Your task to perform on an android device: stop showing notifications on the lock screen Image 0: 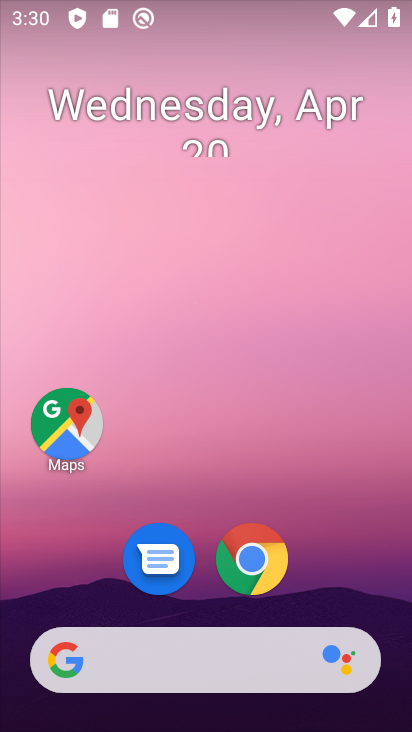
Step 0: drag from (215, 600) to (280, 188)
Your task to perform on an android device: stop showing notifications on the lock screen Image 1: 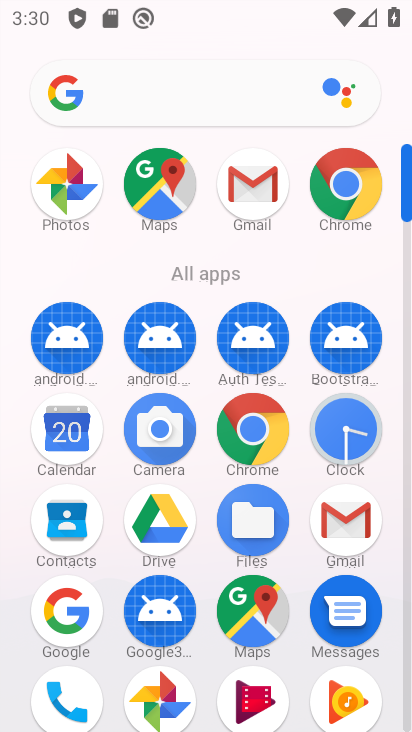
Step 1: drag from (200, 600) to (194, 338)
Your task to perform on an android device: stop showing notifications on the lock screen Image 2: 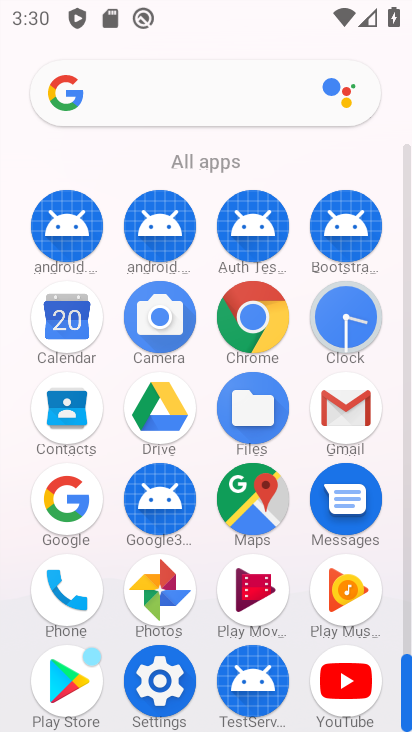
Step 2: click (160, 674)
Your task to perform on an android device: stop showing notifications on the lock screen Image 3: 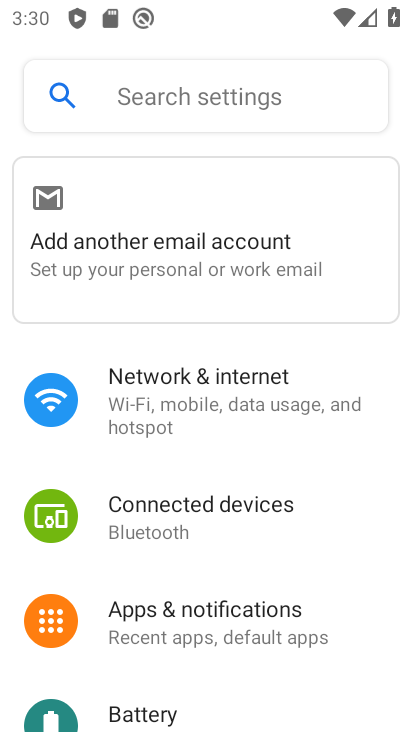
Step 3: click (238, 615)
Your task to perform on an android device: stop showing notifications on the lock screen Image 4: 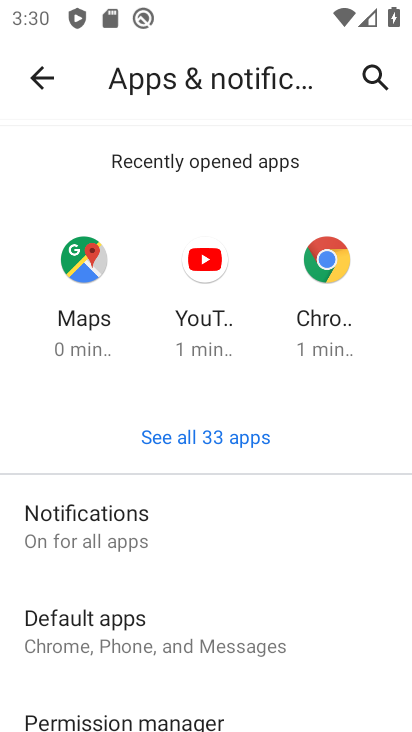
Step 4: drag from (94, 655) to (144, 396)
Your task to perform on an android device: stop showing notifications on the lock screen Image 5: 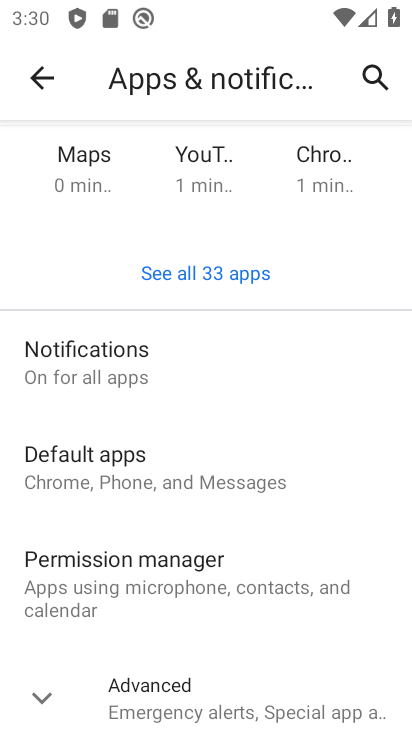
Step 5: click (133, 376)
Your task to perform on an android device: stop showing notifications on the lock screen Image 6: 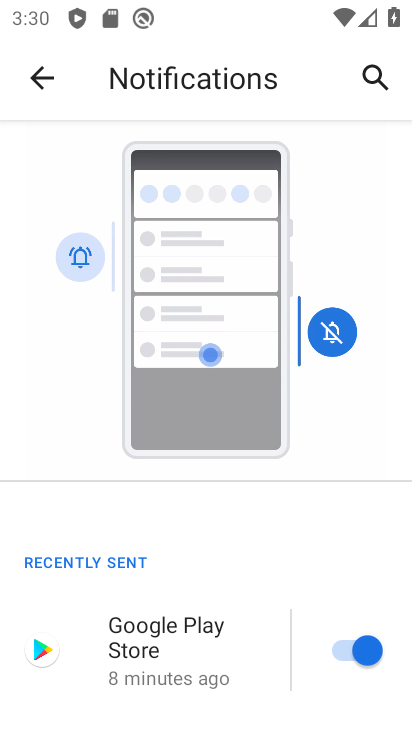
Step 6: drag from (159, 657) to (275, 240)
Your task to perform on an android device: stop showing notifications on the lock screen Image 7: 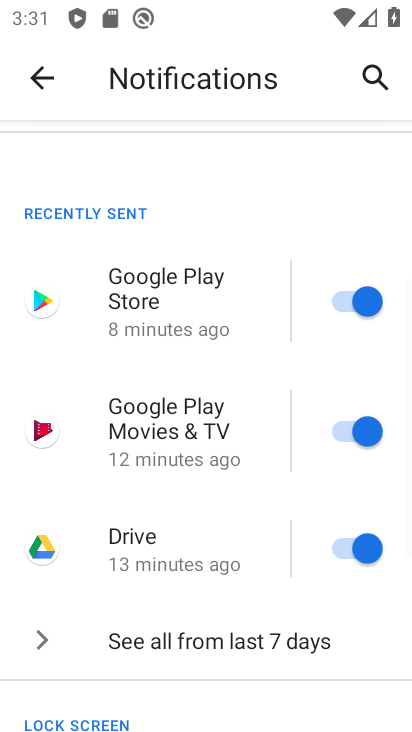
Step 7: drag from (187, 599) to (268, 331)
Your task to perform on an android device: stop showing notifications on the lock screen Image 8: 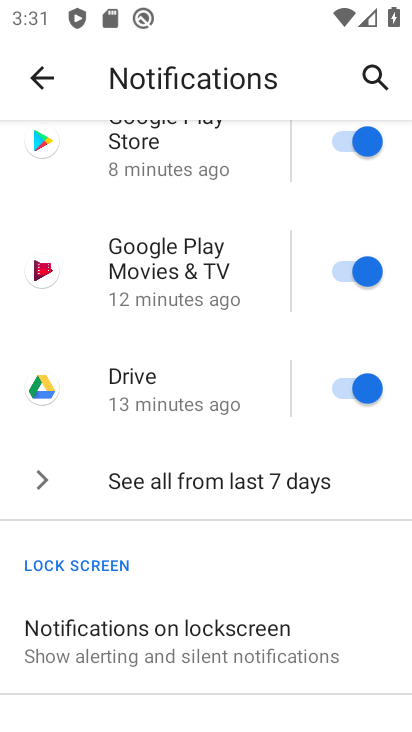
Step 8: click (136, 642)
Your task to perform on an android device: stop showing notifications on the lock screen Image 9: 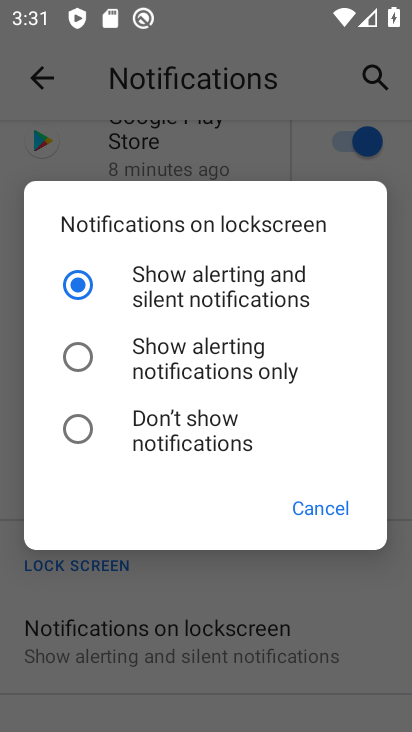
Step 9: click (71, 428)
Your task to perform on an android device: stop showing notifications on the lock screen Image 10: 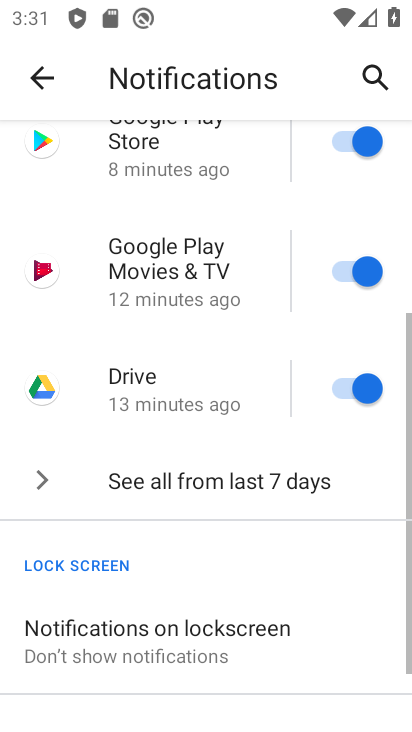
Step 10: task complete